Your task to perform on an android device: check android version Image 0: 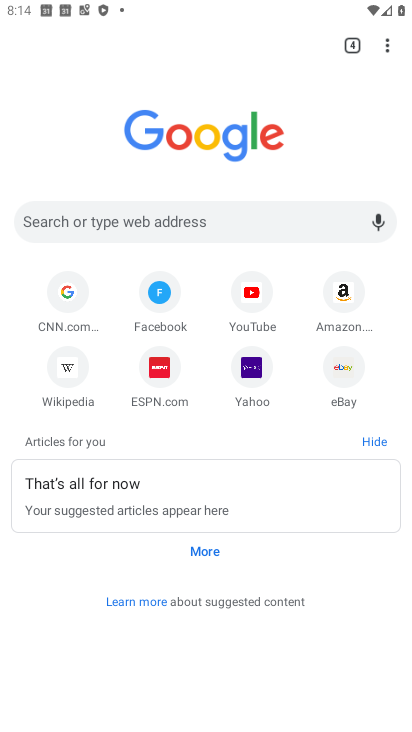
Step 0: press home button
Your task to perform on an android device: check android version Image 1: 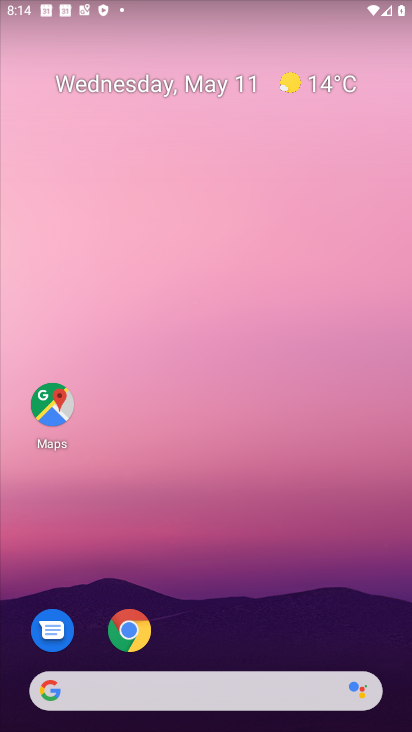
Step 1: press home button
Your task to perform on an android device: check android version Image 2: 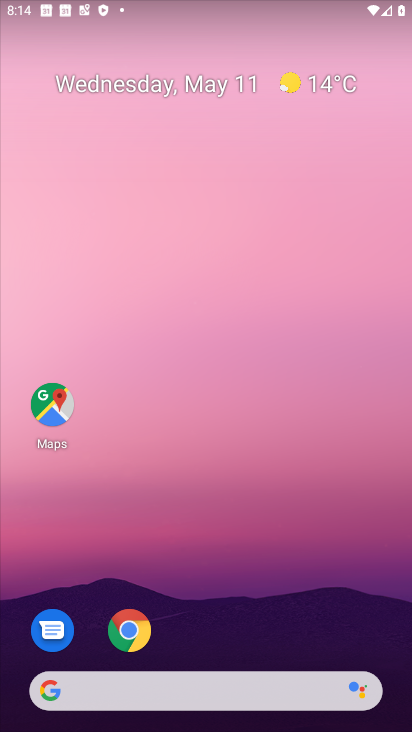
Step 2: press home button
Your task to perform on an android device: check android version Image 3: 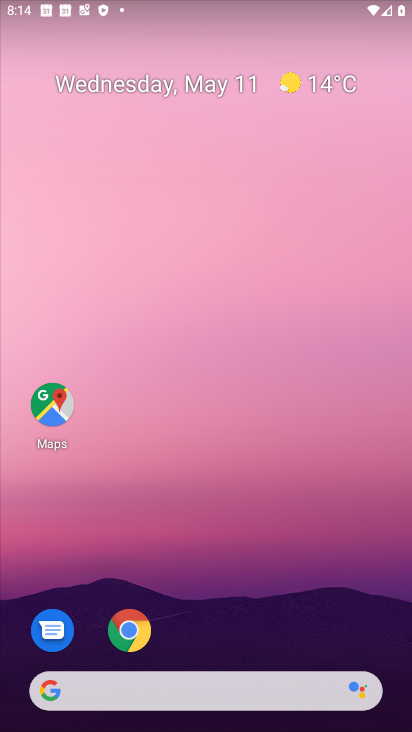
Step 3: drag from (198, 658) to (194, 109)
Your task to perform on an android device: check android version Image 4: 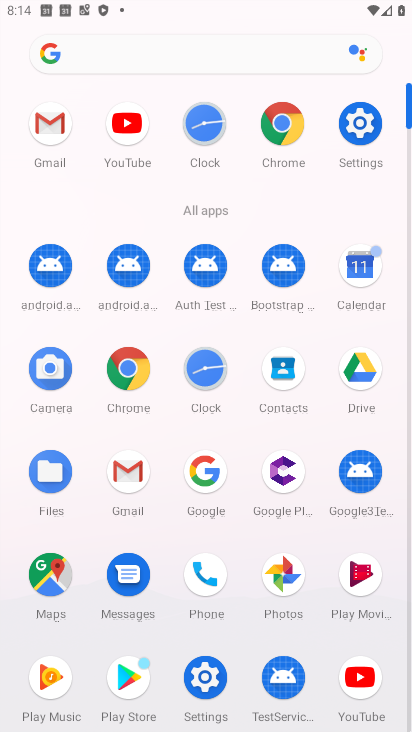
Step 4: click (377, 126)
Your task to perform on an android device: check android version Image 5: 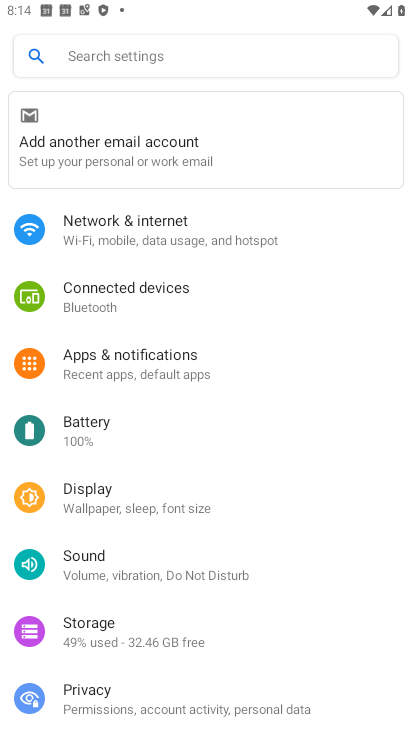
Step 5: drag from (140, 594) to (168, 125)
Your task to perform on an android device: check android version Image 6: 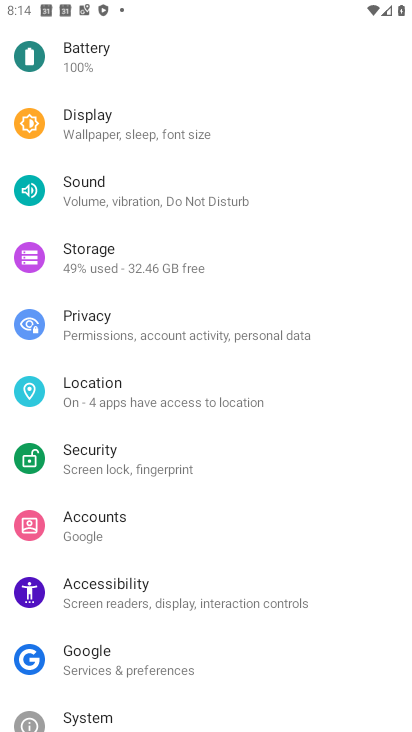
Step 6: drag from (133, 575) to (106, 233)
Your task to perform on an android device: check android version Image 7: 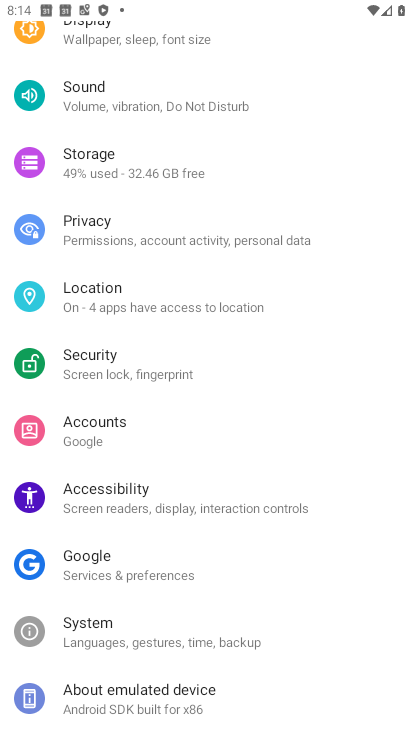
Step 7: click (131, 701)
Your task to perform on an android device: check android version Image 8: 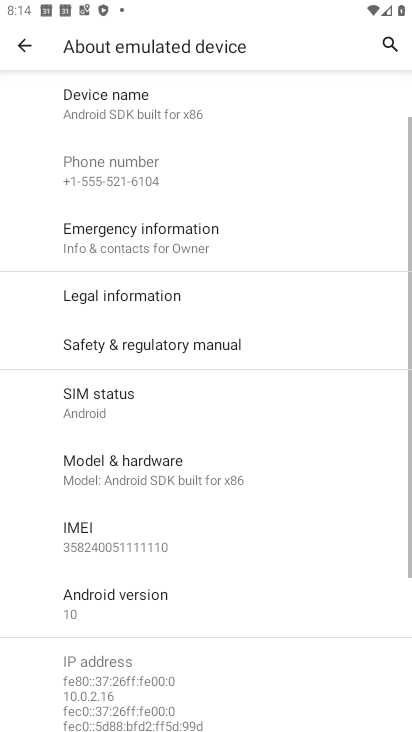
Step 8: click (118, 632)
Your task to perform on an android device: check android version Image 9: 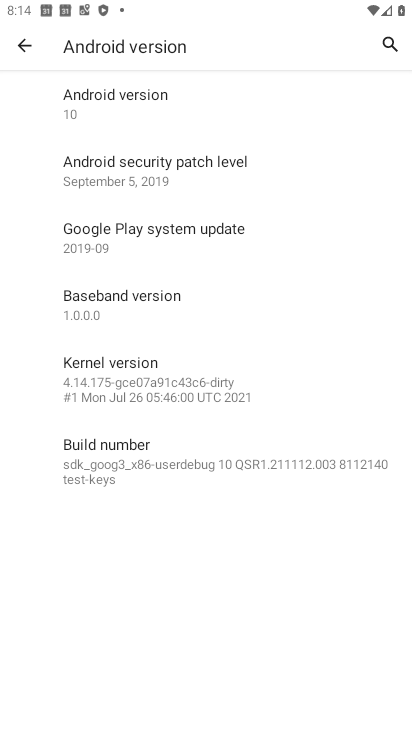
Step 9: click (118, 120)
Your task to perform on an android device: check android version Image 10: 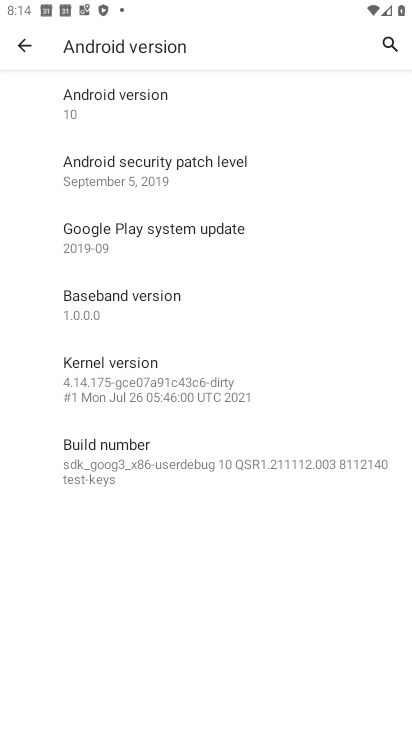
Step 10: task complete